Your task to perform on an android device: turn off notifications in google photos Image 0: 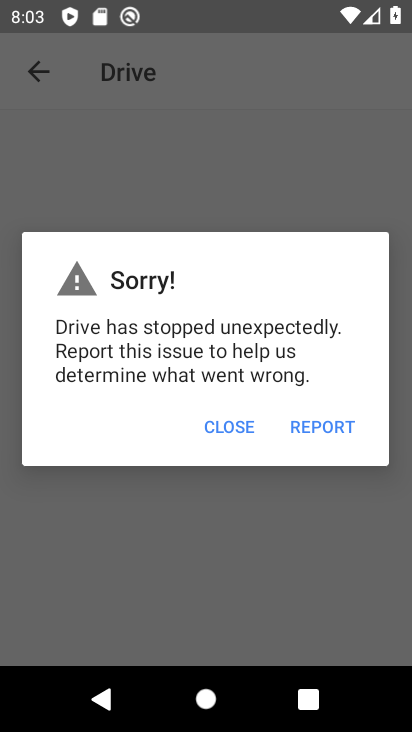
Step 0: click (235, 413)
Your task to perform on an android device: turn off notifications in google photos Image 1: 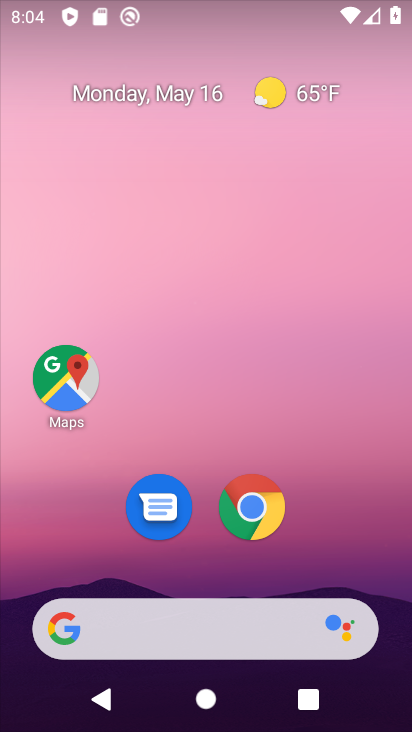
Step 1: drag from (215, 596) to (182, 5)
Your task to perform on an android device: turn off notifications in google photos Image 2: 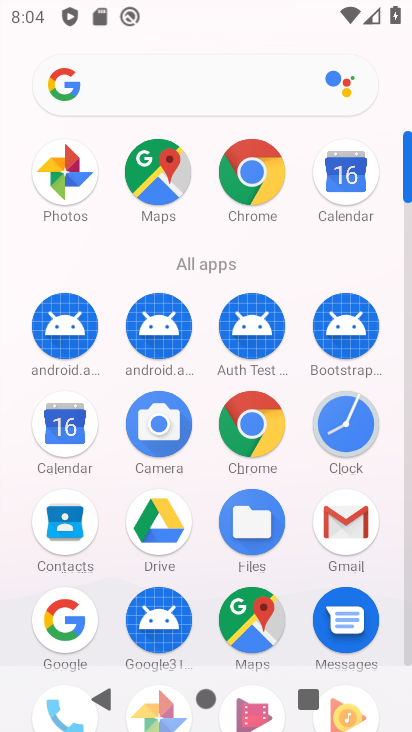
Step 2: drag from (201, 578) to (171, 150)
Your task to perform on an android device: turn off notifications in google photos Image 3: 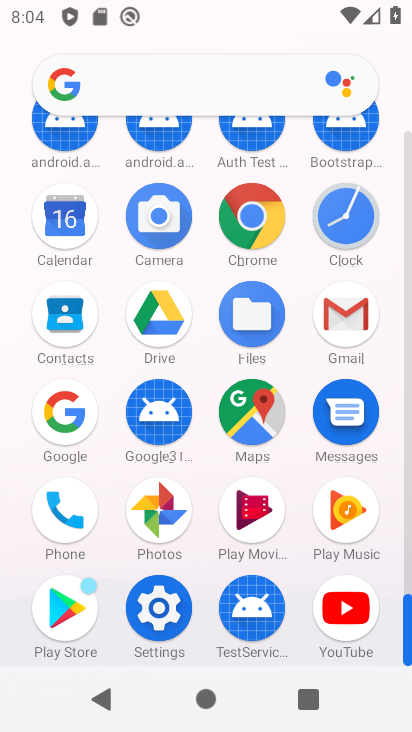
Step 3: click (170, 501)
Your task to perform on an android device: turn off notifications in google photos Image 4: 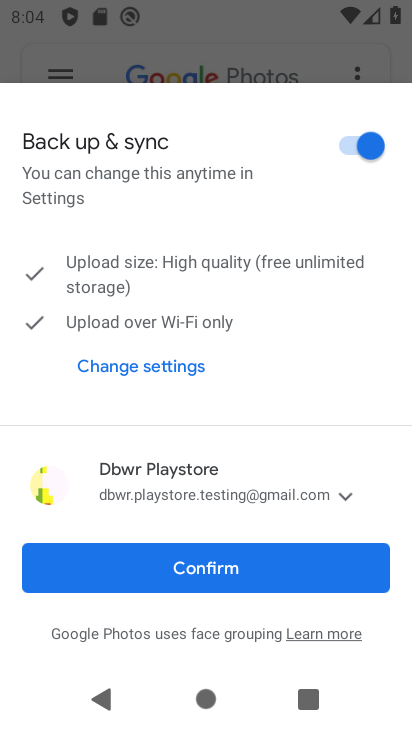
Step 4: click (50, 79)
Your task to perform on an android device: turn off notifications in google photos Image 5: 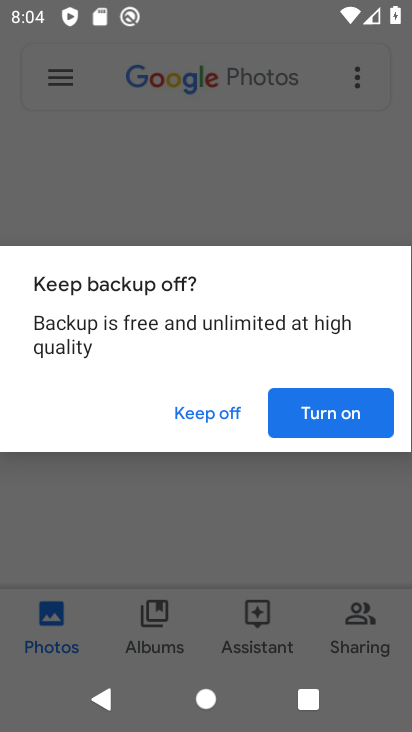
Step 5: click (221, 408)
Your task to perform on an android device: turn off notifications in google photos Image 6: 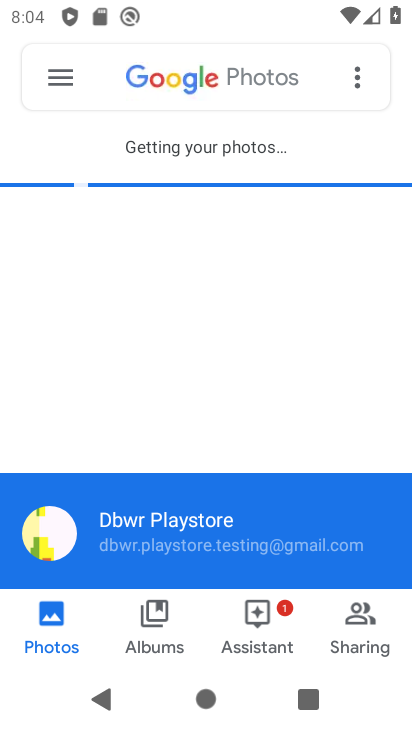
Step 6: click (44, 84)
Your task to perform on an android device: turn off notifications in google photos Image 7: 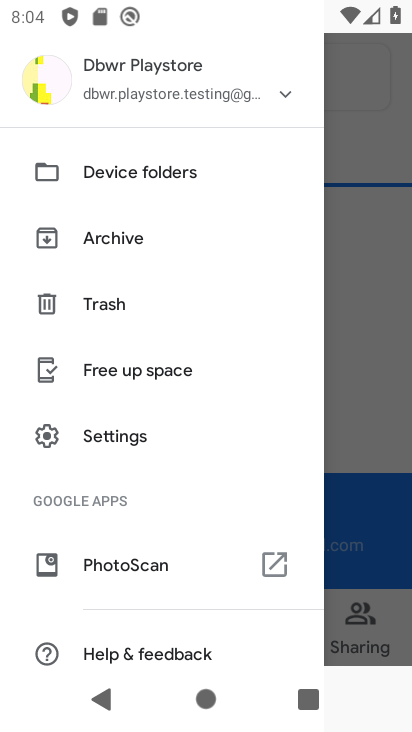
Step 7: drag from (159, 650) to (109, 96)
Your task to perform on an android device: turn off notifications in google photos Image 8: 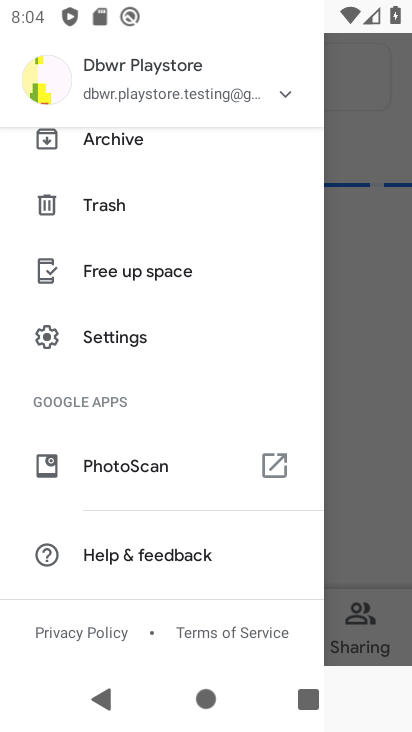
Step 8: click (110, 343)
Your task to perform on an android device: turn off notifications in google photos Image 9: 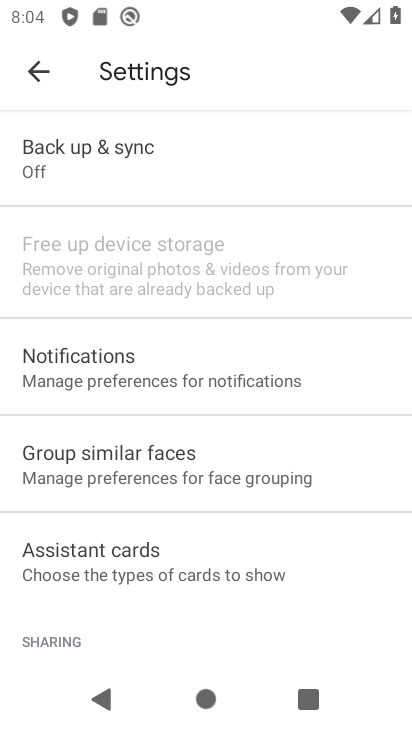
Step 9: click (110, 343)
Your task to perform on an android device: turn off notifications in google photos Image 10: 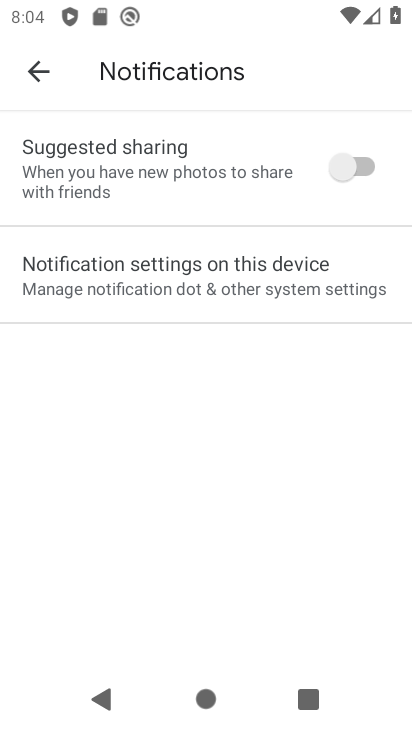
Step 10: click (286, 254)
Your task to perform on an android device: turn off notifications in google photos Image 11: 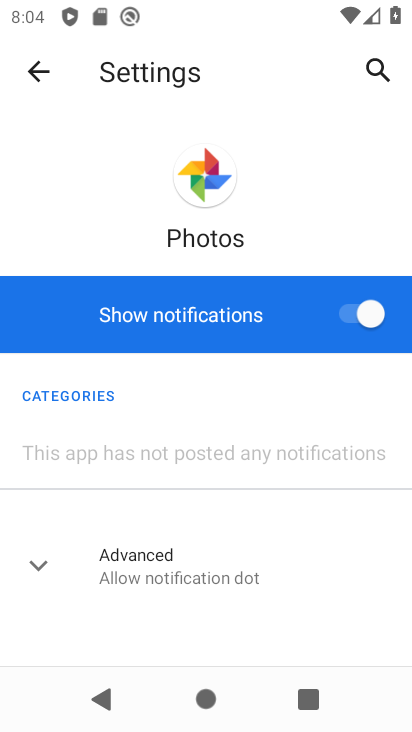
Step 11: click (349, 324)
Your task to perform on an android device: turn off notifications in google photos Image 12: 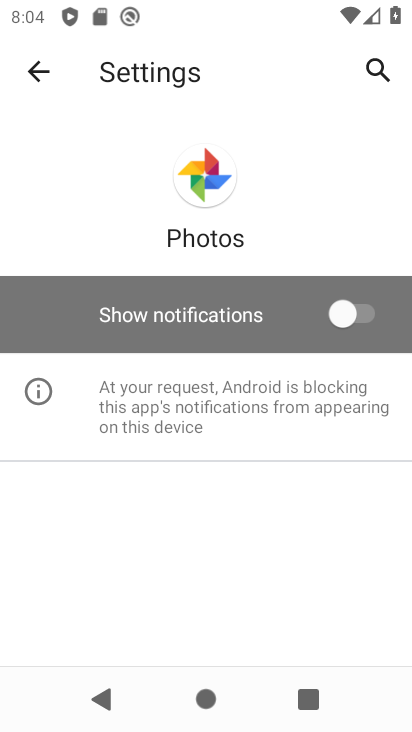
Step 12: task complete